Your task to perform on an android device: check out phone information Image 0: 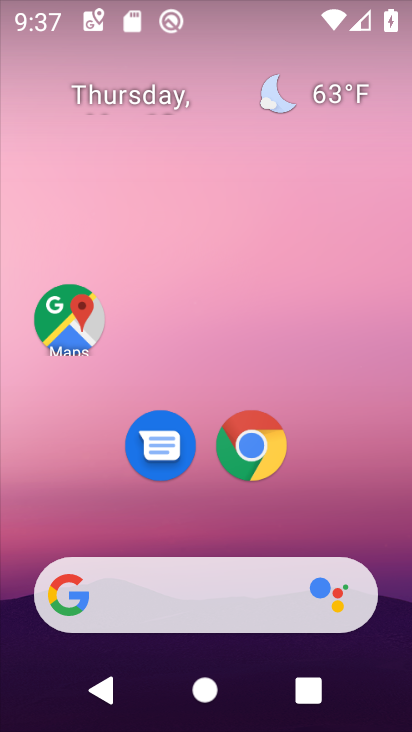
Step 0: drag from (245, 430) to (317, 173)
Your task to perform on an android device: check out phone information Image 1: 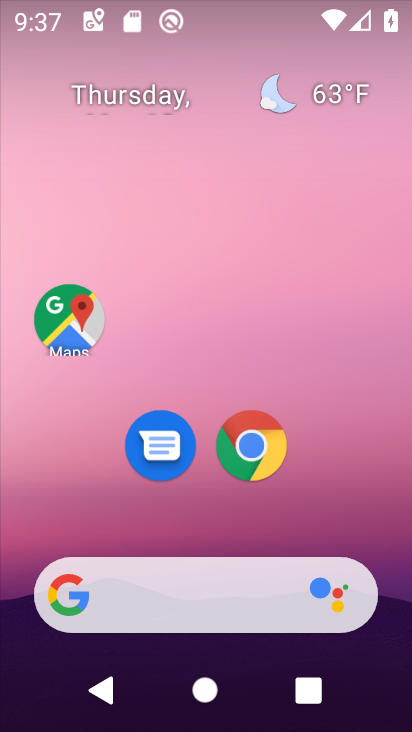
Step 1: drag from (237, 517) to (284, 147)
Your task to perform on an android device: check out phone information Image 2: 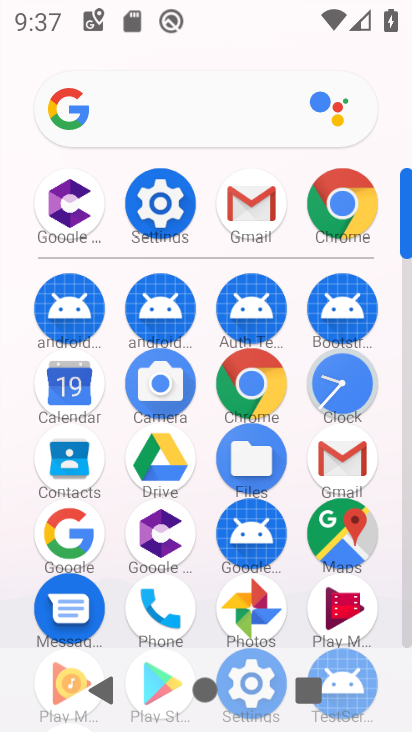
Step 2: click (183, 216)
Your task to perform on an android device: check out phone information Image 3: 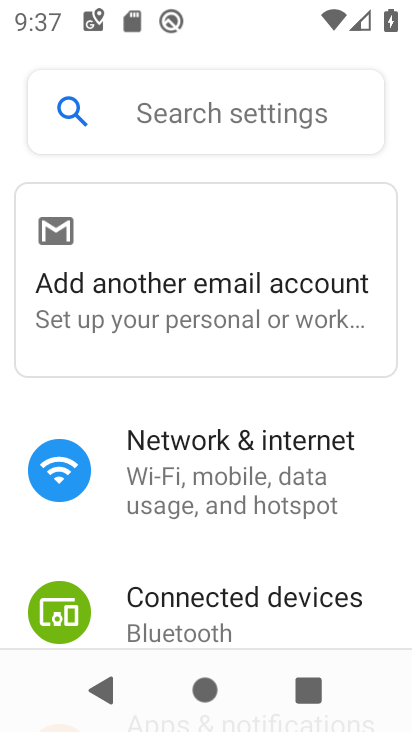
Step 3: drag from (133, 506) to (231, 219)
Your task to perform on an android device: check out phone information Image 4: 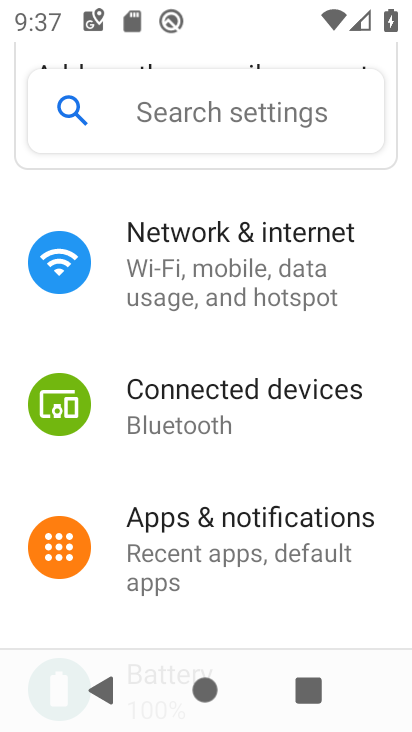
Step 4: drag from (257, 496) to (284, 91)
Your task to perform on an android device: check out phone information Image 5: 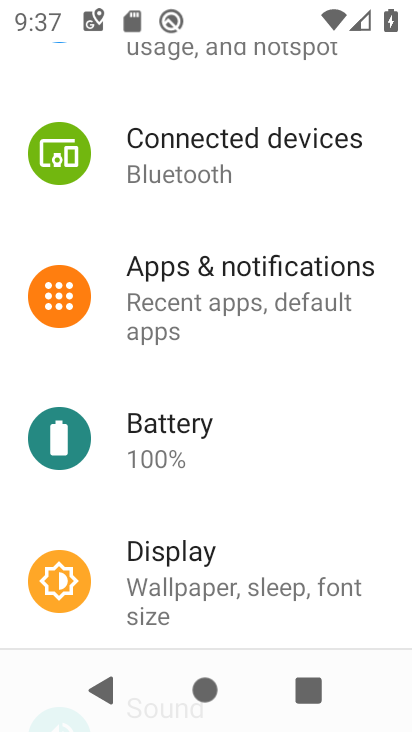
Step 5: drag from (322, 572) to (320, 158)
Your task to perform on an android device: check out phone information Image 6: 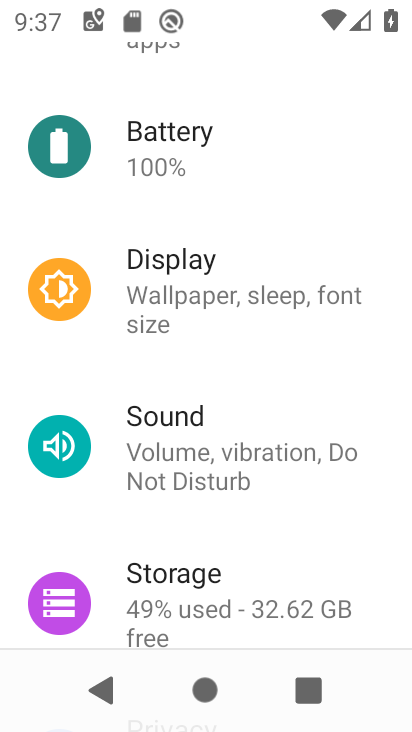
Step 6: drag from (316, 489) to (309, 93)
Your task to perform on an android device: check out phone information Image 7: 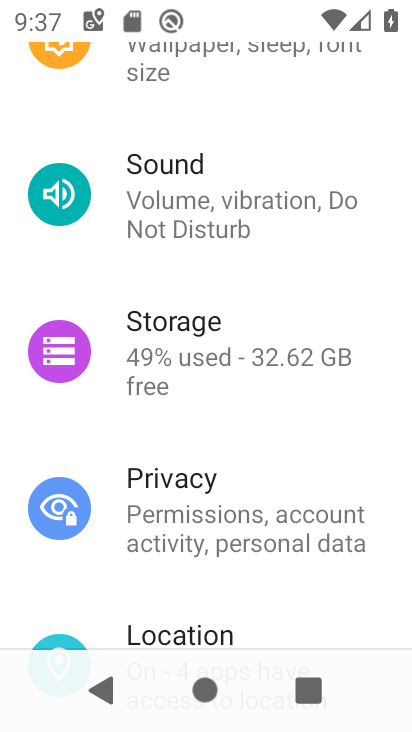
Step 7: drag from (315, 521) to (319, 171)
Your task to perform on an android device: check out phone information Image 8: 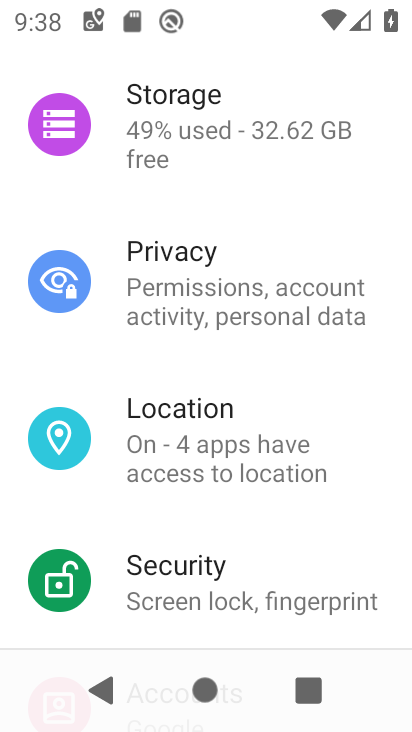
Step 8: drag from (315, 572) to (293, 177)
Your task to perform on an android device: check out phone information Image 9: 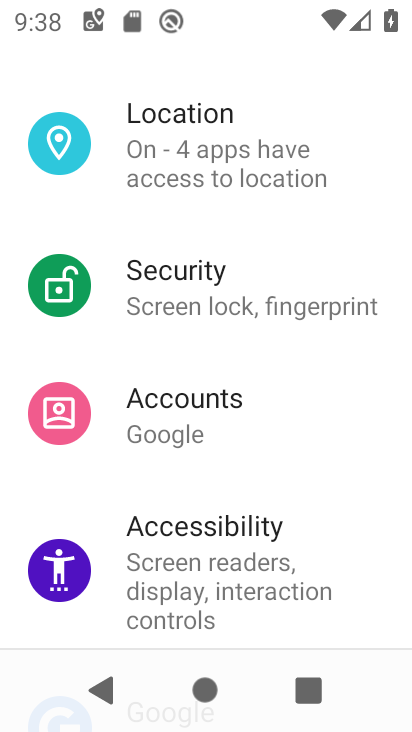
Step 9: drag from (272, 490) to (265, 156)
Your task to perform on an android device: check out phone information Image 10: 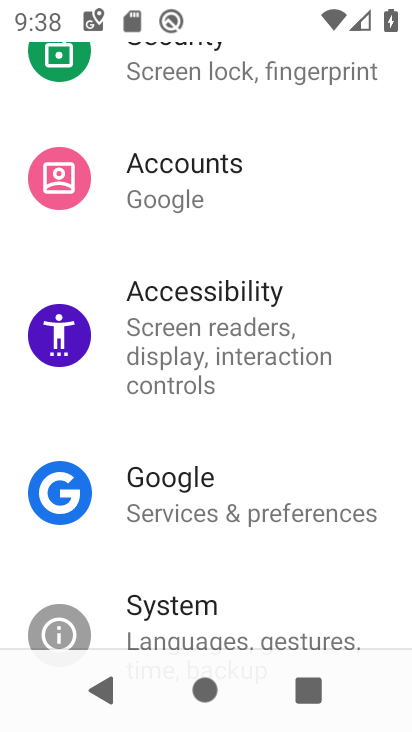
Step 10: drag from (311, 547) to (319, 137)
Your task to perform on an android device: check out phone information Image 11: 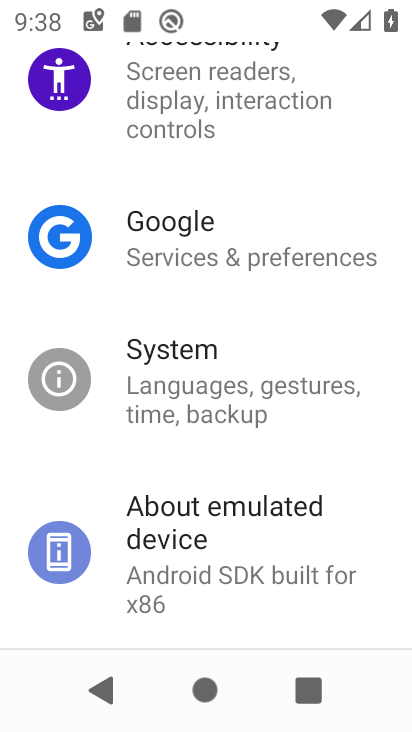
Step 11: click (254, 534)
Your task to perform on an android device: check out phone information Image 12: 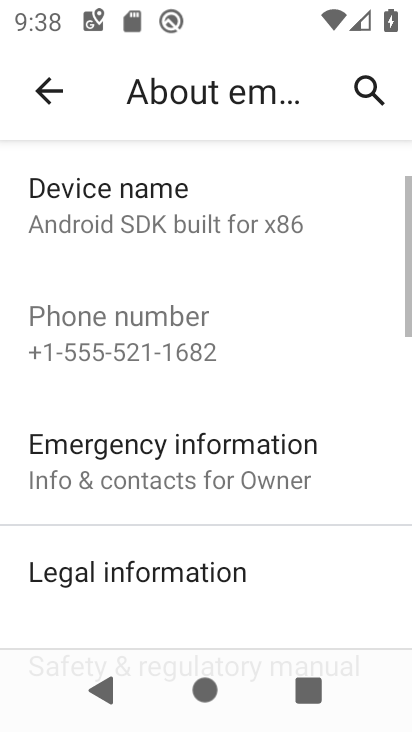
Step 12: task complete